Your task to perform on an android device: See recent photos Image 0: 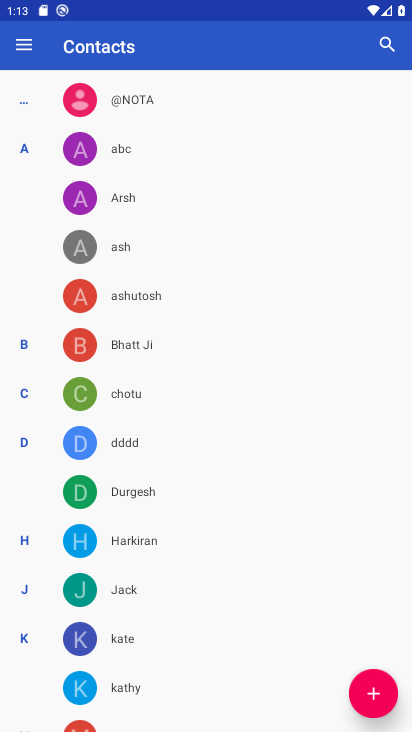
Step 0: press home button
Your task to perform on an android device: See recent photos Image 1: 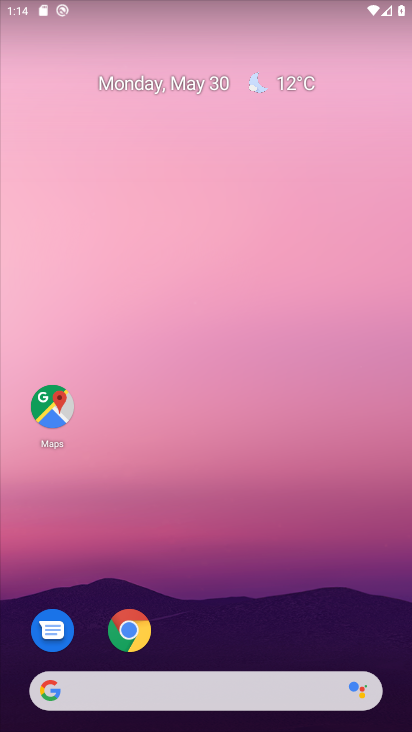
Step 1: drag from (182, 679) to (164, 97)
Your task to perform on an android device: See recent photos Image 2: 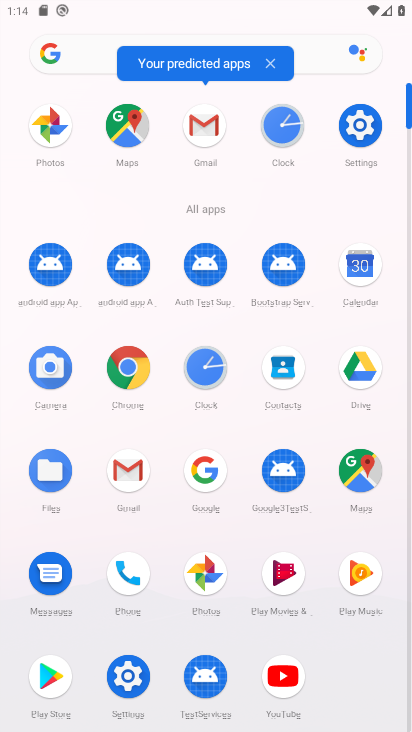
Step 2: click (200, 569)
Your task to perform on an android device: See recent photos Image 3: 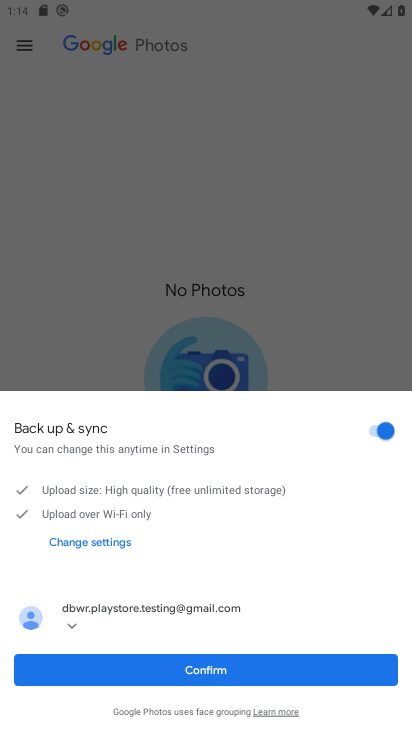
Step 3: click (196, 664)
Your task to perform on an android device: See recent photos Image 4: 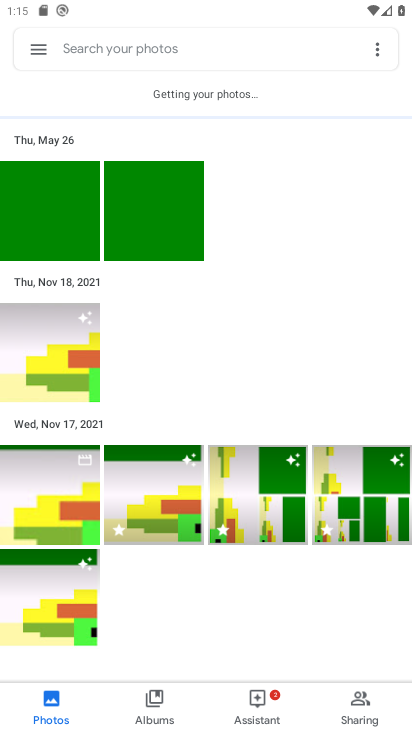
Step 4: task complete